Your task to perform on an android device: Search for pizza restaurants on Maps Image 0: 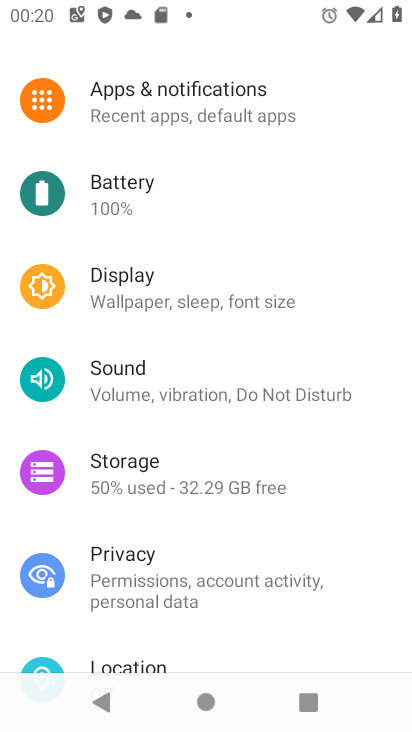
Step 0: press home button
Your task to perform on an android device: Search for pizza restaurants on Maps Image 1: 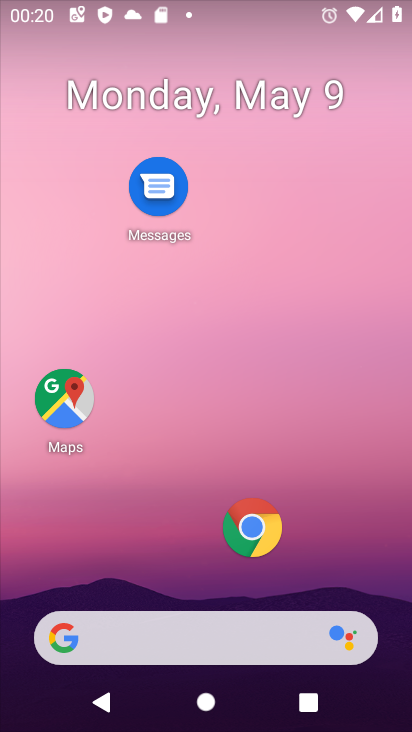
Step 1: click (64, 396)
Your task to perform on an android device: Search for pizza restaurants on Maps Image 2: 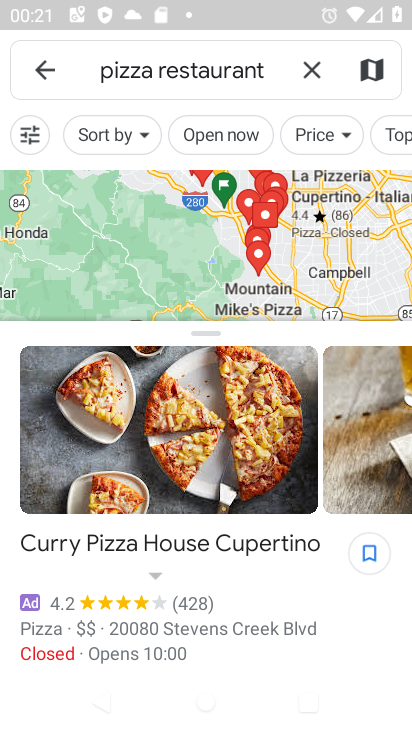
Step 2: task complete